Your task to perform on an android device: empty trash in the gmail app Image 0: 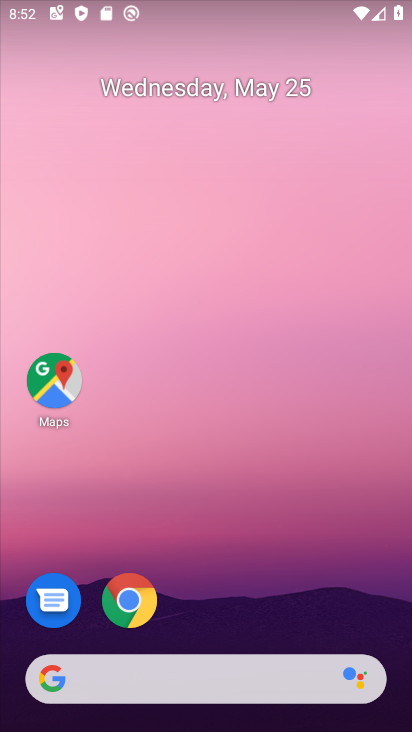
Step 0: drag from (245, 536) to (222, 32)
Your task to perform on an android device: empty trash in the gmail app Image 1: 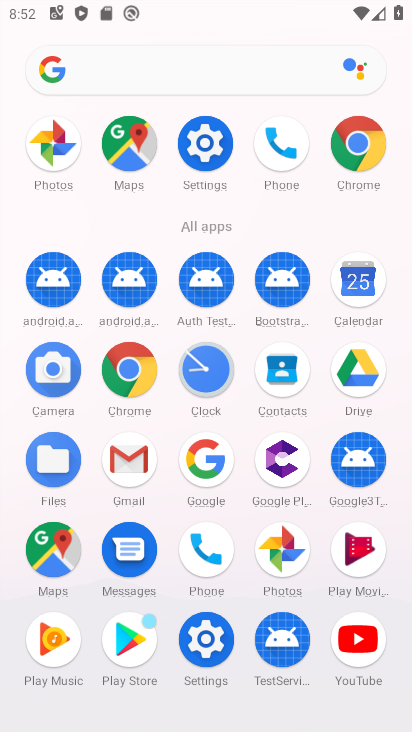
Step 1: click (127, 452)
Your task to perform on an android device: empty trash in the gmail app Image 2: 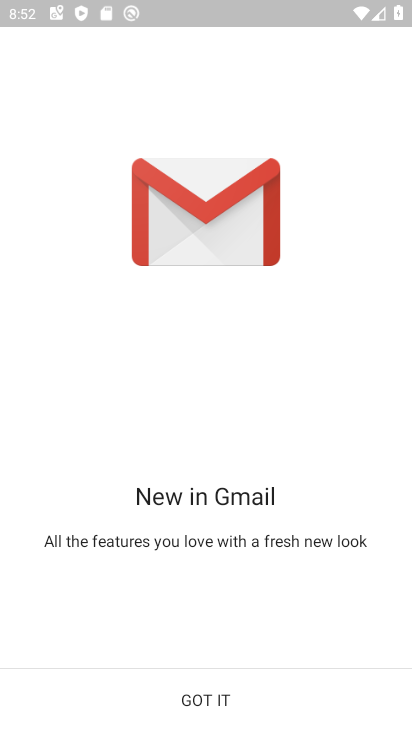
Step 2: click (215, 700)
Your task to perform on an android device: empty trash in the gmail app Image 3: 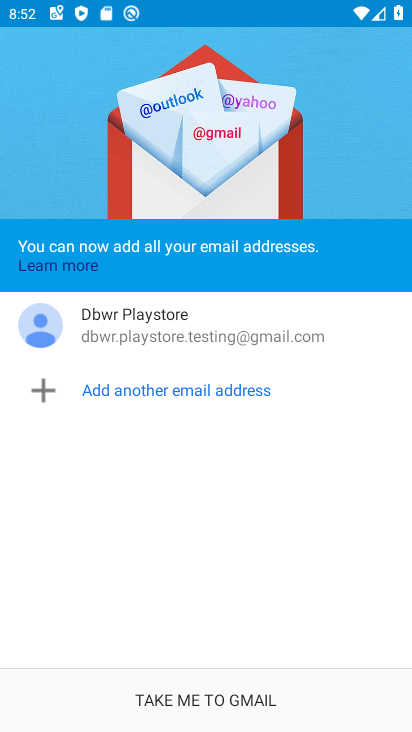
Step 3: click (225, 681)
Your task to perform on an android device: empty trash in the gmail app Image 4: 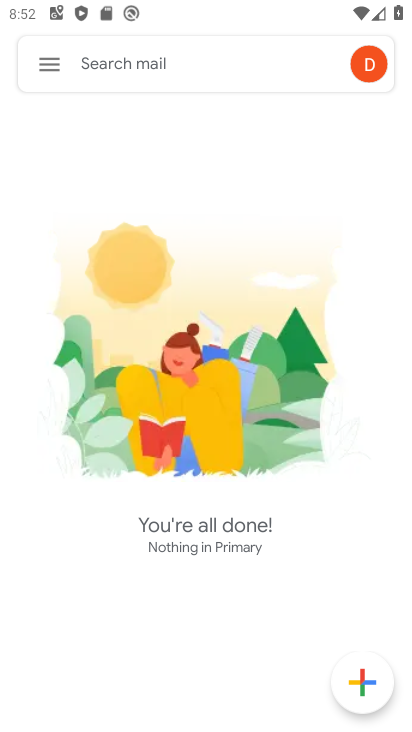
Step 4: click (55, 57)
Your task to perform on an android device: empty trash in the gmail app Image 5: 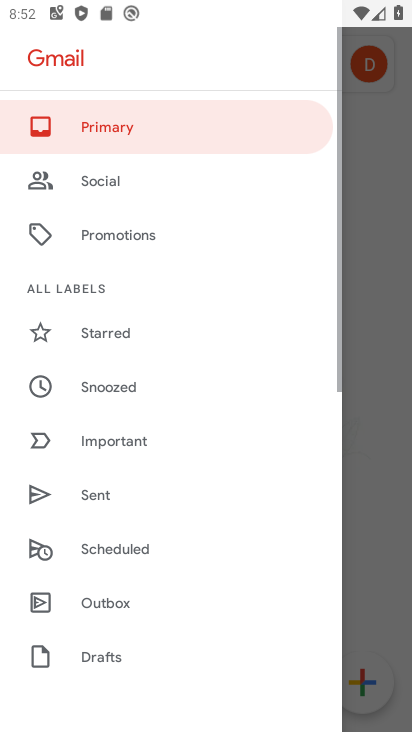
Step 5: drag from (158, 621) to (195, 186)
Your task to perform on an android device: empty trash in the gmail app Image 6: 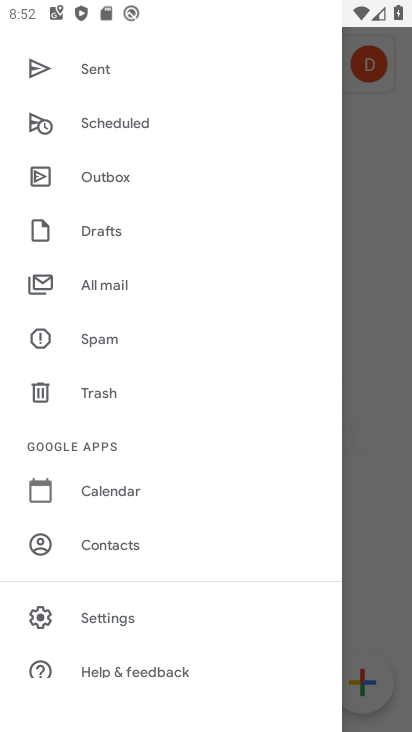
Step 6: click (126, 390)
Your task to perform on an android device: empty trash in the gmail app Image 7: 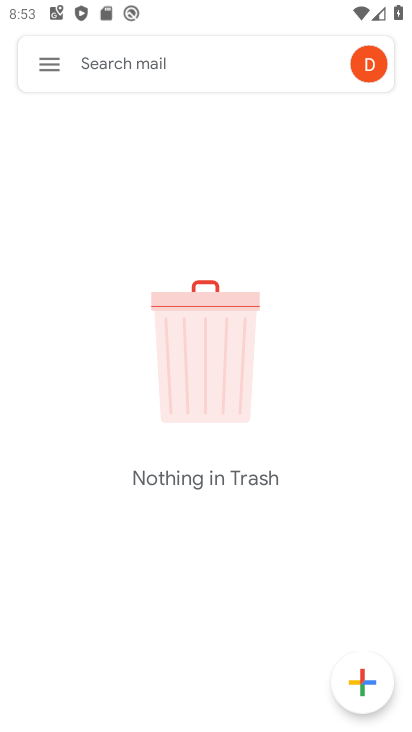
Step 7: task complete